Your task to perform on an android device: add a label to a message in the gmail app Image 0: 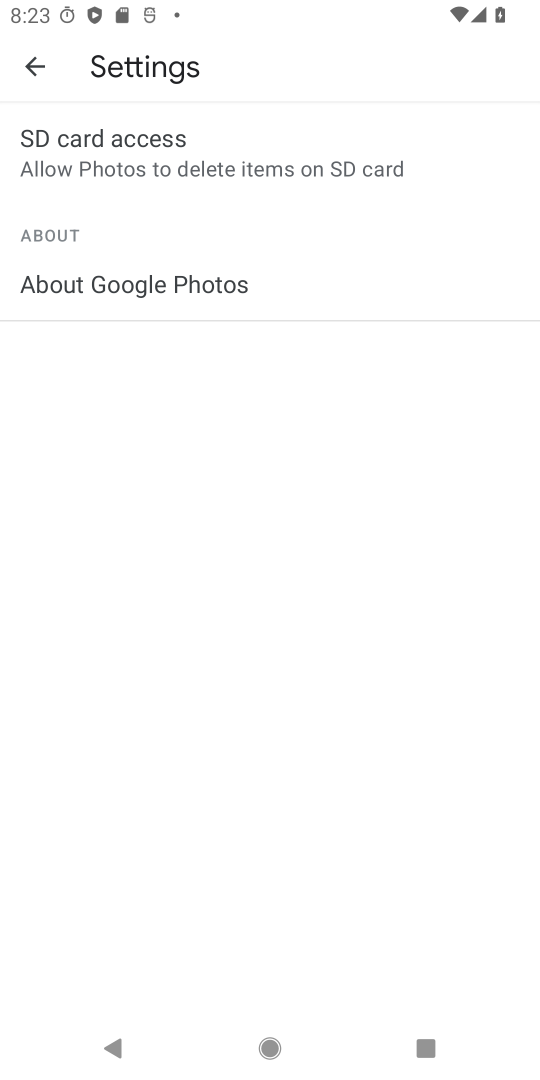
Step 0: press home button
Your task to perform on an android device: add a label to a message in the gmail app Image 1: 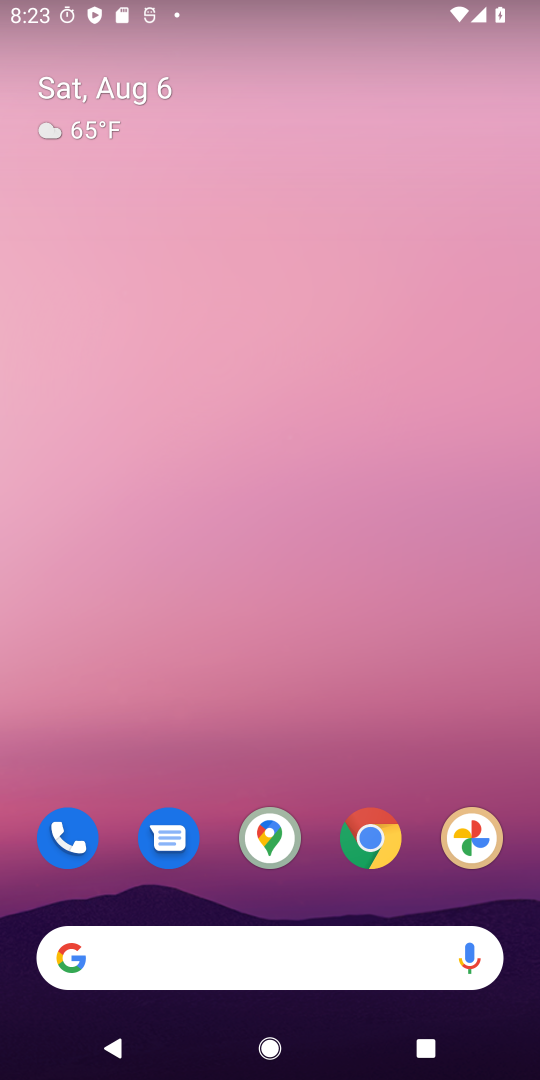
Step 1: drag from (272, 606) to (74, 10)
Your task to perform on an android device: add a label to a message in the gmail app Image 2: 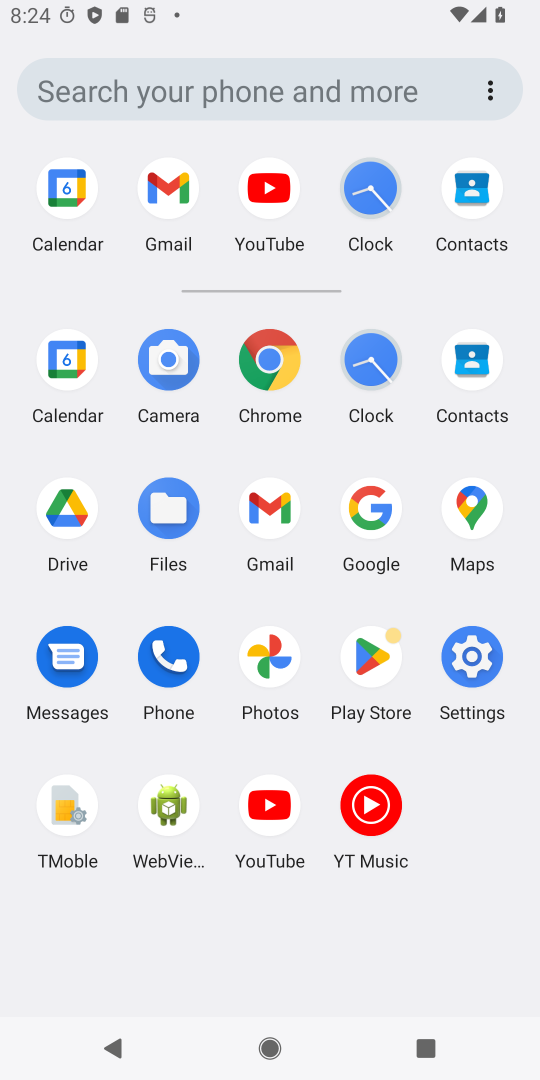
Step 2: click (172, 218)
Your task to perform on an android device: add a label to a message in the gmail app Image 3: 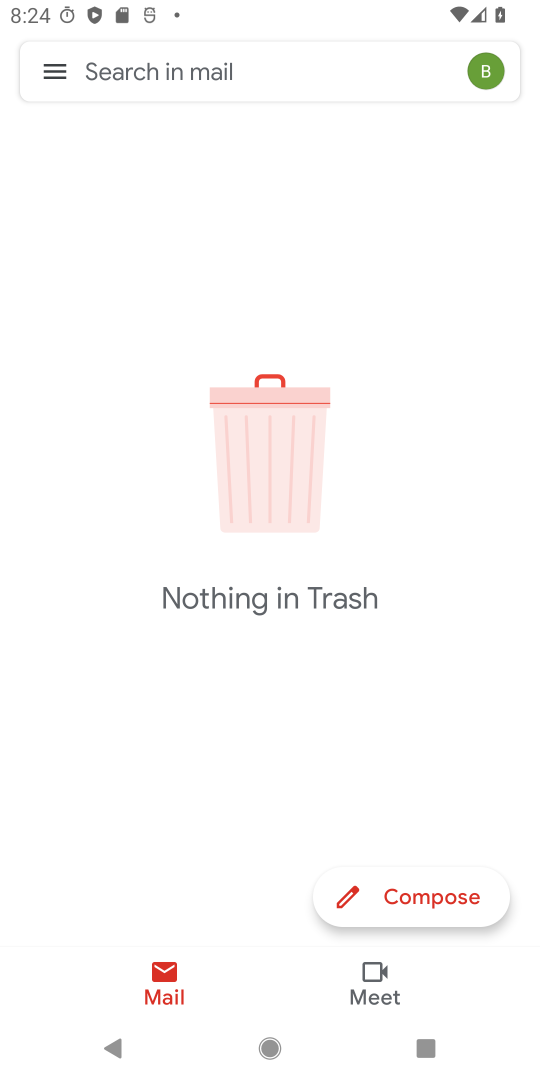
Step 3: click (60, 70)
Your task to perform on an android device: add a label to a message in the gmail app Image 4: 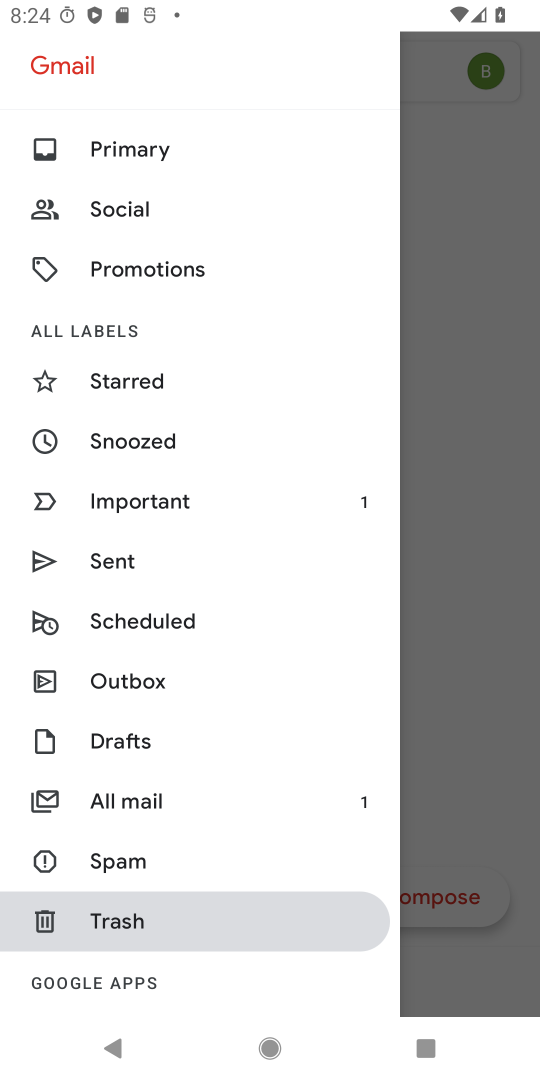
Step 4: click (175, 801)
Your task to perform on an android device: add a label to a message in the gmail app Image 5: 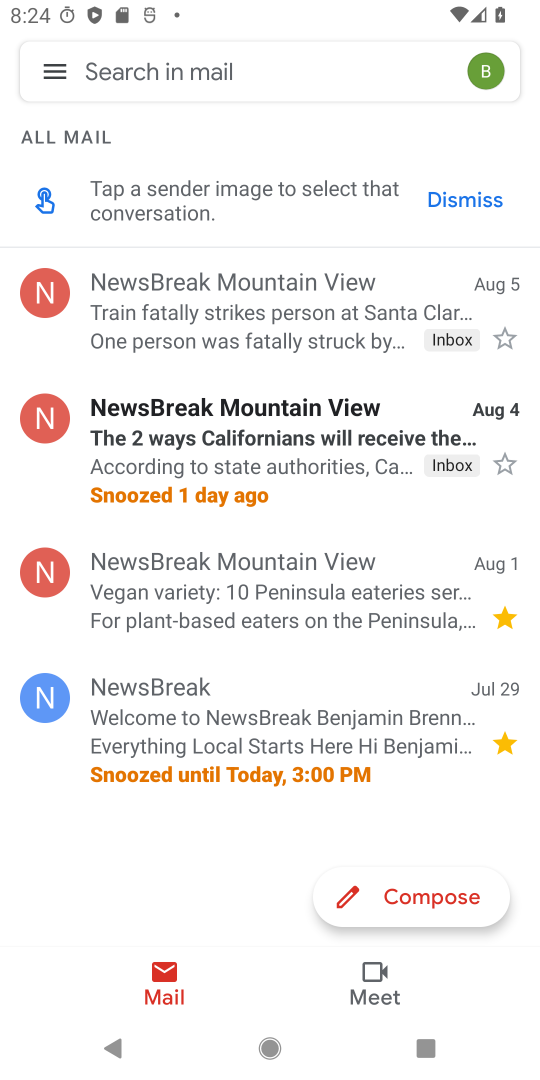
Step 5: click (357, 342)
Your task to perform on an android device: add a label to a message in the gmail app Image 6: 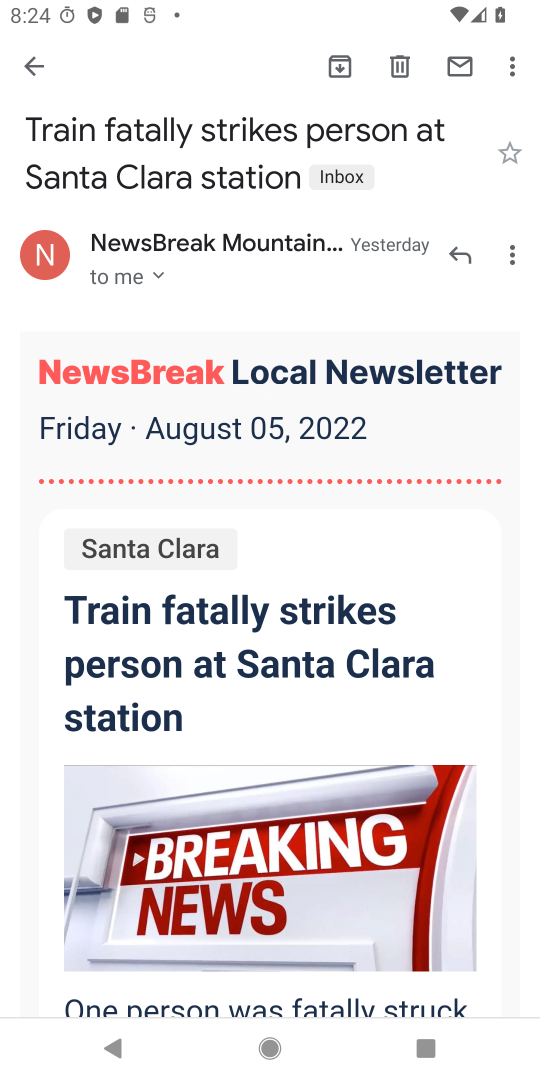
Step 6: click (354, 174)
Your task to perform on an android device: add a label to a message in the gmail app Image 7: 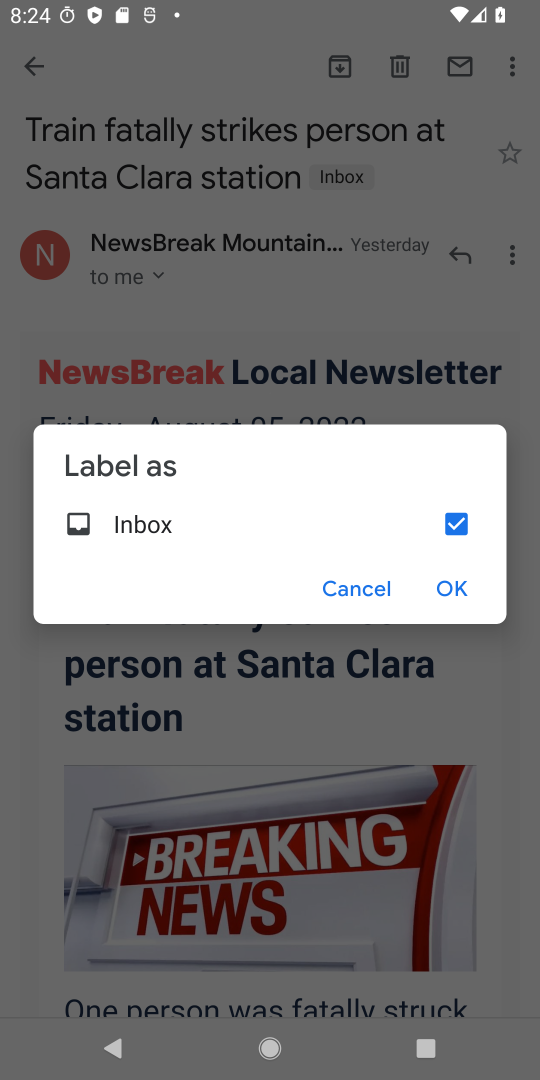
Step 7: click (453, 513)
Your task to perform on an android device: add a label to a message in the gmail app Image 8: 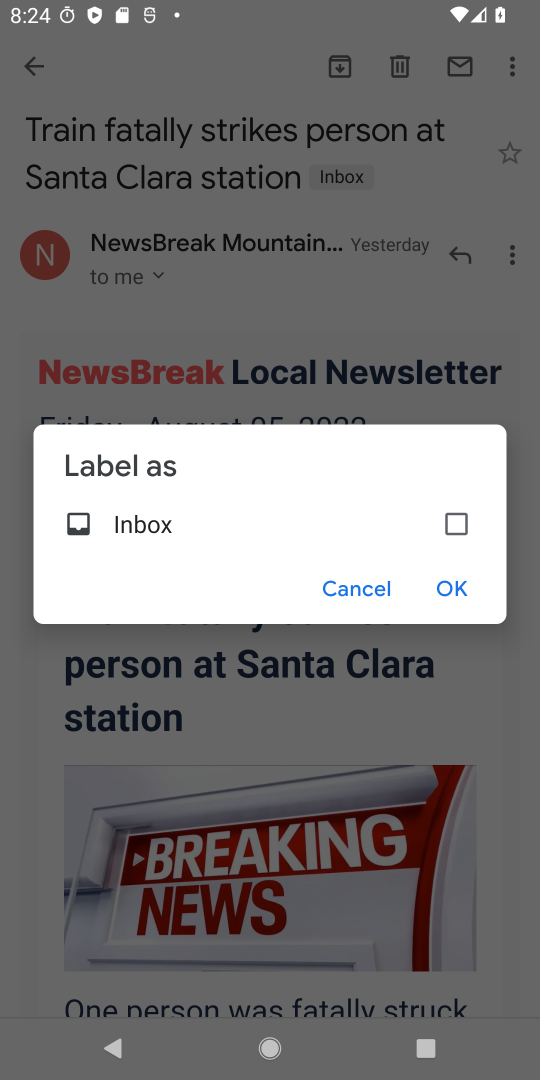
Step 8: click (462, 577)
Your task to perform on an android device: add a label to a message in the gmail app Image 9: 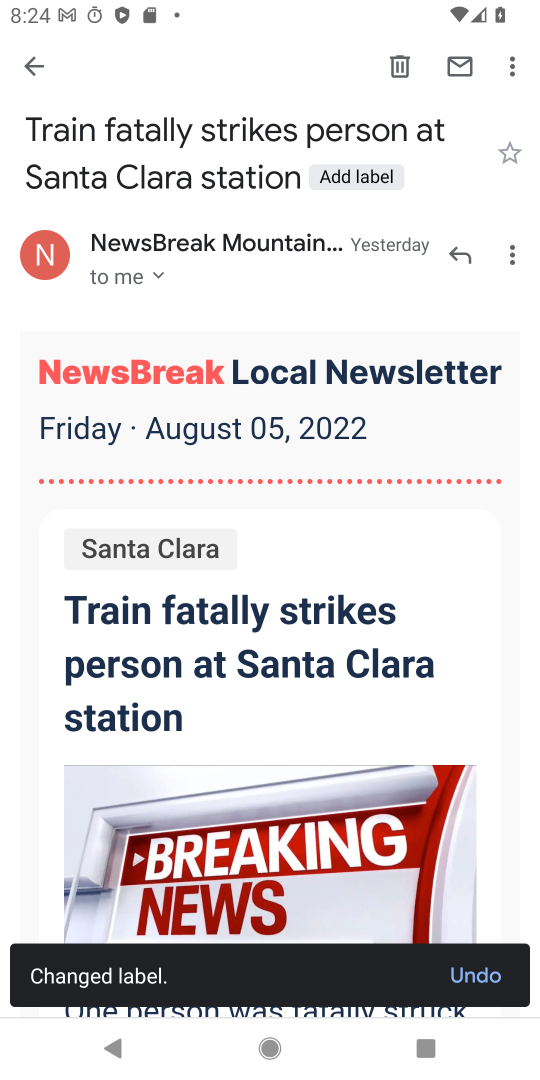
Step 9: task complete